Your task to perform on an android device: Do I have any events today? Image 0: 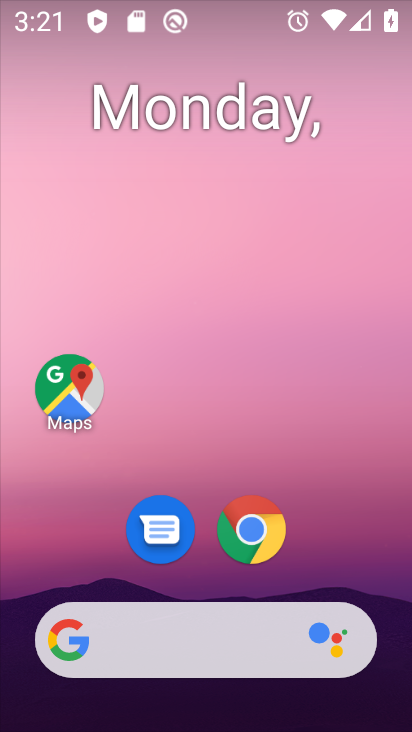
Step 0: click (335, 476)
Your task to perform on an android device: Do I have any events today? Image 1: 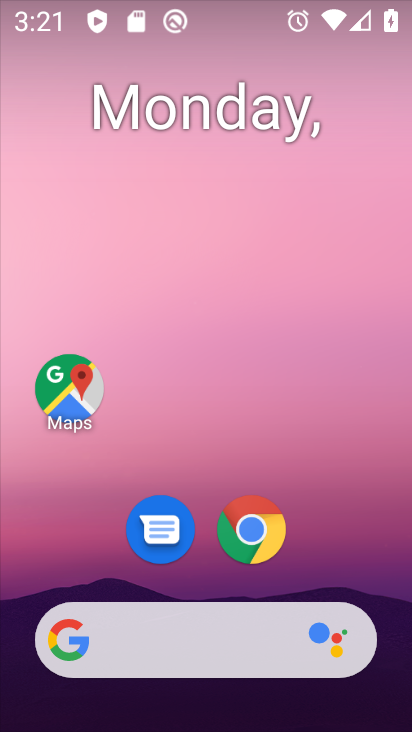
Step 1: drag from (212, 571) to (44, 124)
Your task to perform on an android device: Do I have any events today? Image 2: 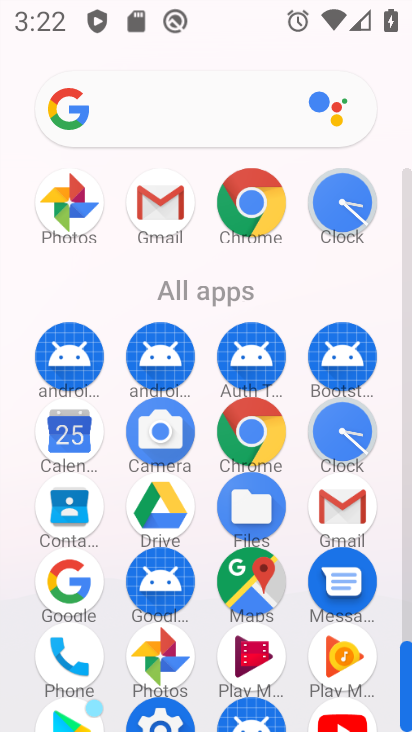
Step 2: click (71, 427)
Your task to perform on an android device: Do I have any events today? Image 3: 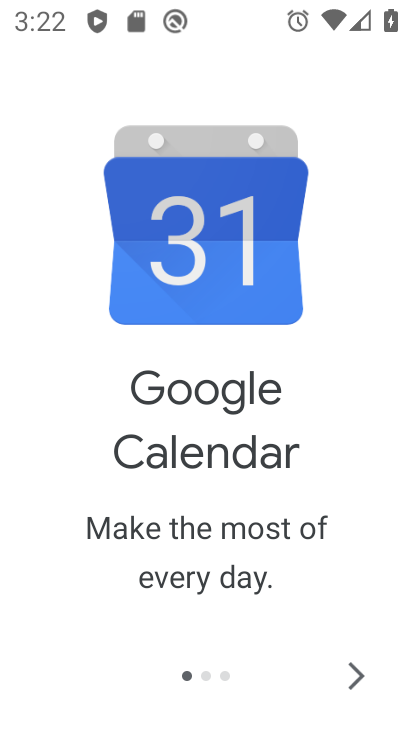
Step 3: click (358, 673)
Your task to perform on an android device: Do I have any events today? Image 4: 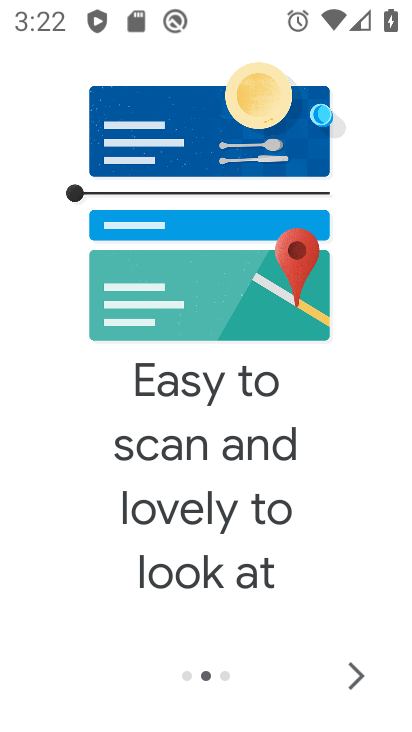
Step 4: click (357, 672)
Your task to perform on an android device: Do I have any events today? Image 5: 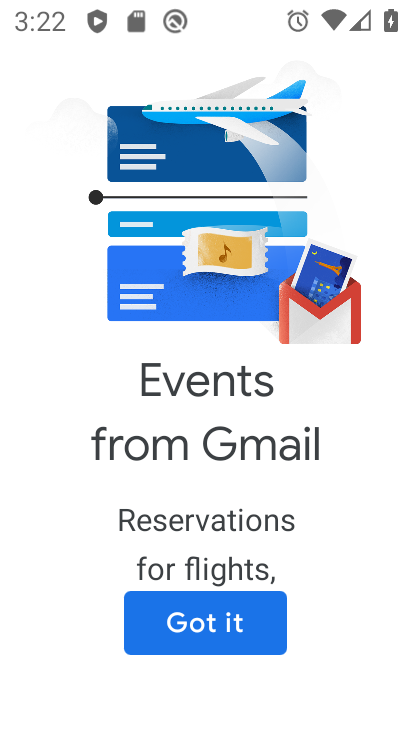
Step 5: click (208, 627)
Your task to perform on an android device: Do I have any events today? Image 6: 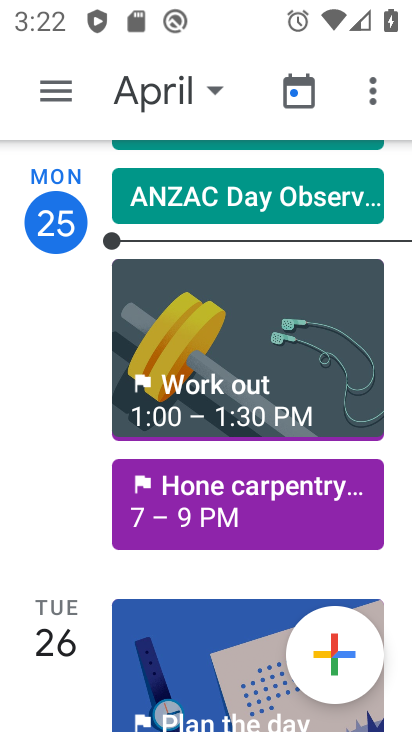
Step 6: click (55, 105)
Your task to perform on an android device: Do I have any events today? Image 7: 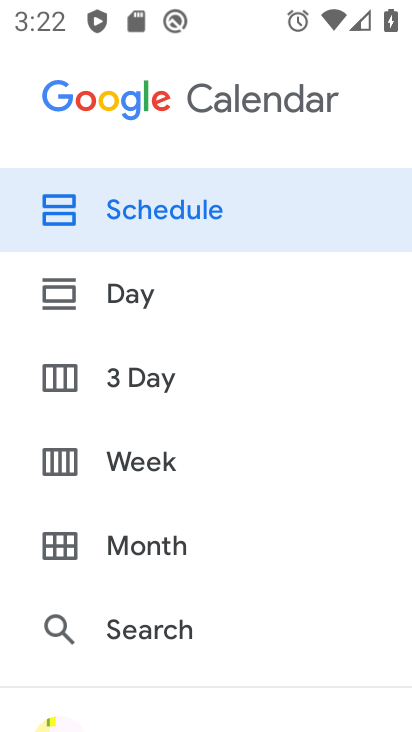
Step 7: drag from (145, 564) to (254, 87)
Your task to perform on an android device: Do I have any events today? Image 8: 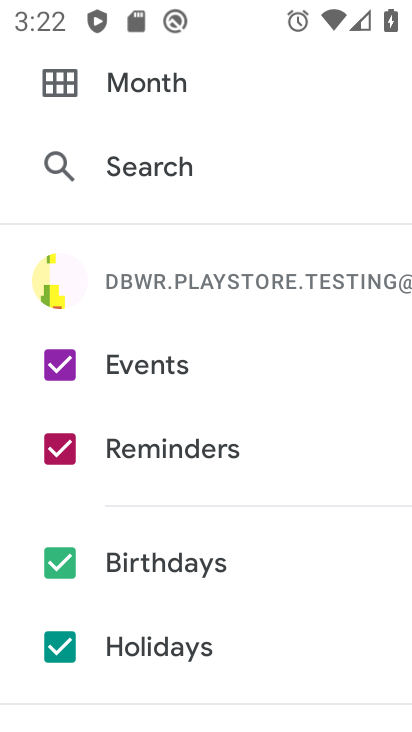
Step 8: click (85, 443)
Your task to perform on an android device: Do I have any events today? Image 9: 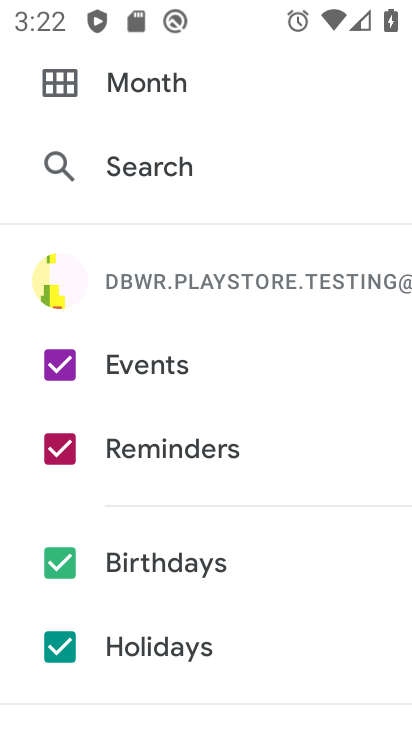
Step 9: click (68, 558)
Your task to perform on an android device: Do I have any events today? Image 10: 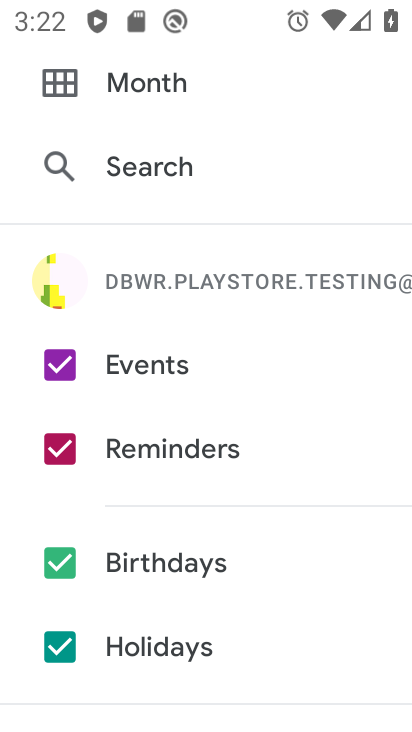
Step 10: click (60, 569)
Your task to perform on an android device: Do I have any events today? Image 11: 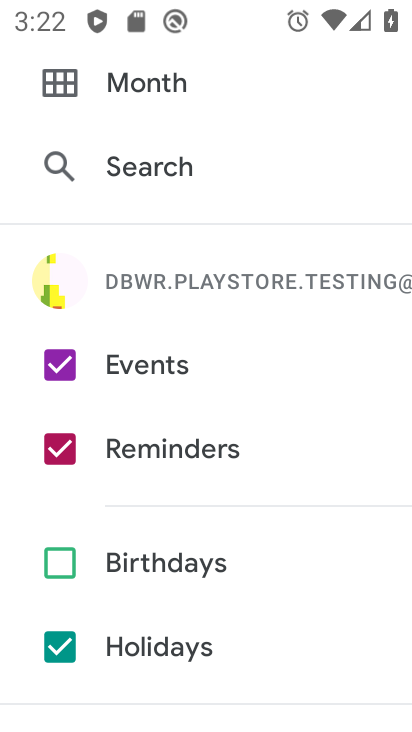
Step 11: click (65, 450)
Your task to perform on an android device: Do I have any events today? Image 12: 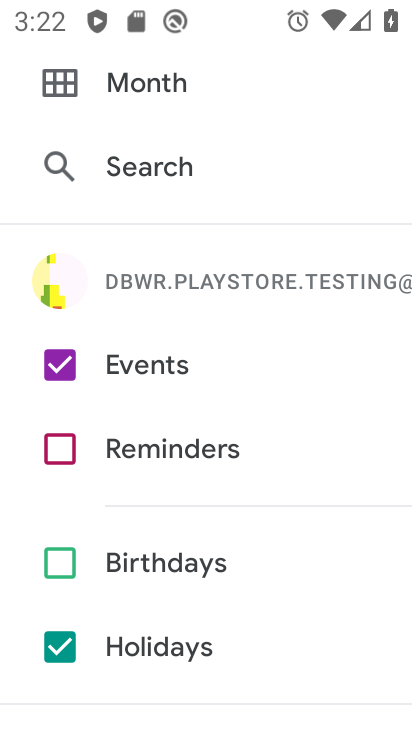
Step 12: drag from (132, 607) to (182, 355)
Your task to perform on an android device: Do I have any events today? Image 13: 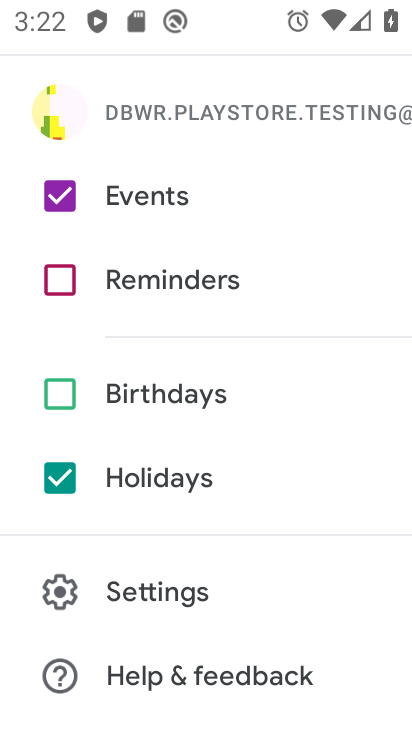
Step 13: click (72, 479)
Your task to perform on an android device: Do I have any events today? Image 14: 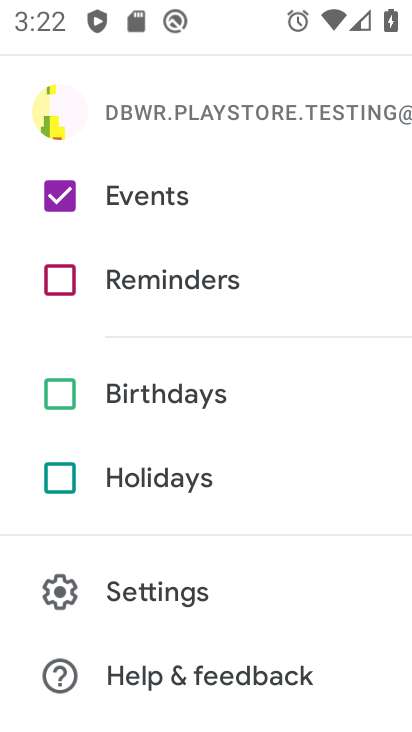
Step 14: drag from (320, 255) to (239, 713)
Your task to perform on an android device: Do I have any events today? Image 15: 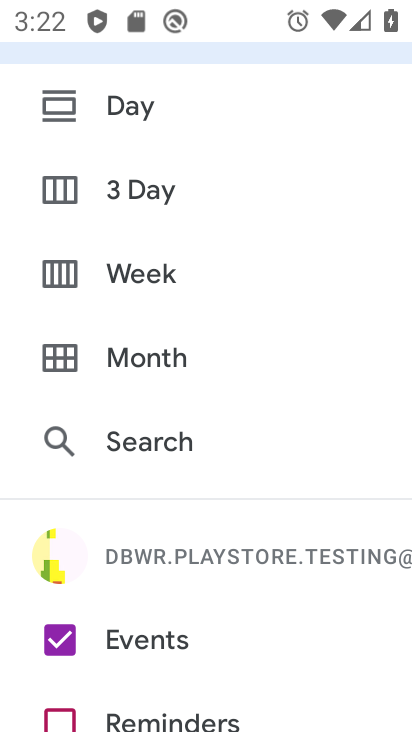
Step 15: drag from (228, 276) to (219, 533)
Your task to perform on an android device: Do I have any events today? Image 16: 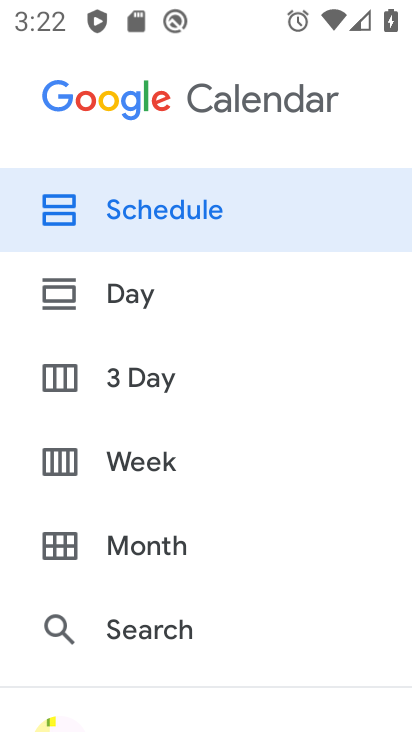
Step 16: click (144, 319)
Your task to perform on an android device: Do I have any events today? Image 17: 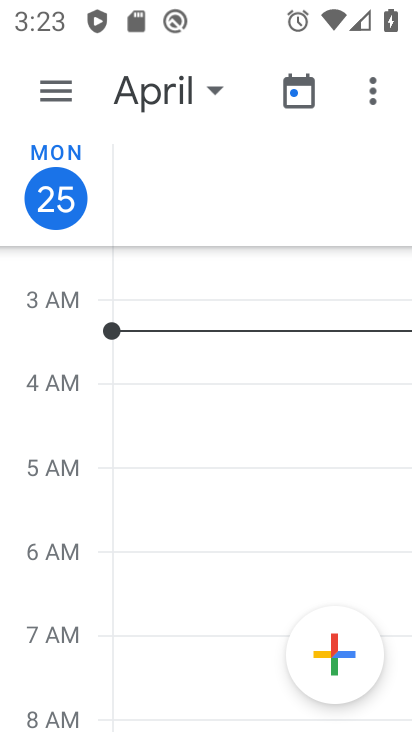
Step 17: task complete